Your task to perform on an android device: turn on the 12-hour format for clock Image 0: 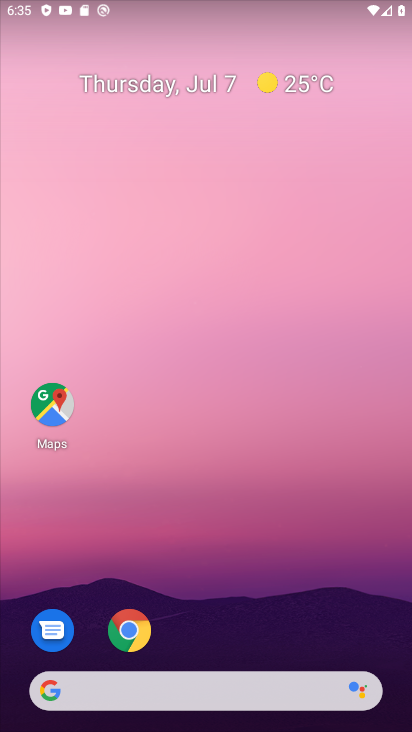
Step 0: drag from (259, 565) to (249, 152)
Your task to perform on an android device: turn on the 12-hour format for clock Image 1: 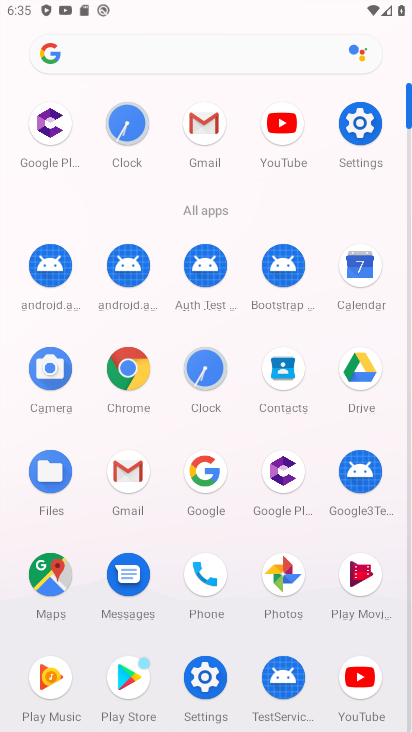
Step 1: click (203, 369)
Your task to perform on an android device: turn on the 12-hour format for clock Image 2: 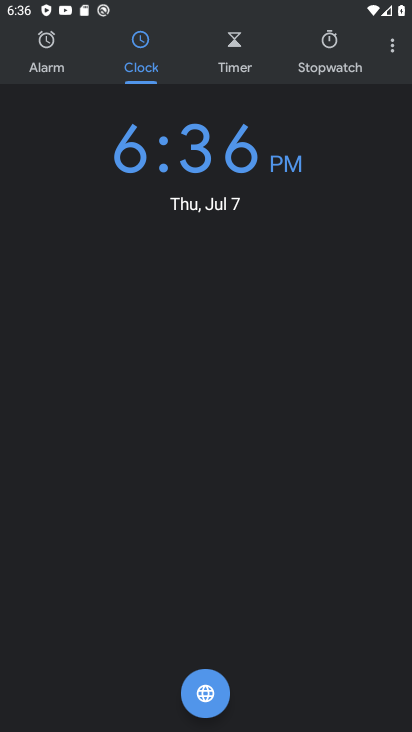
Step 2: click (393, 42)
Your task to perform on an android device: turn on the 12-hour format for clock Image 3: 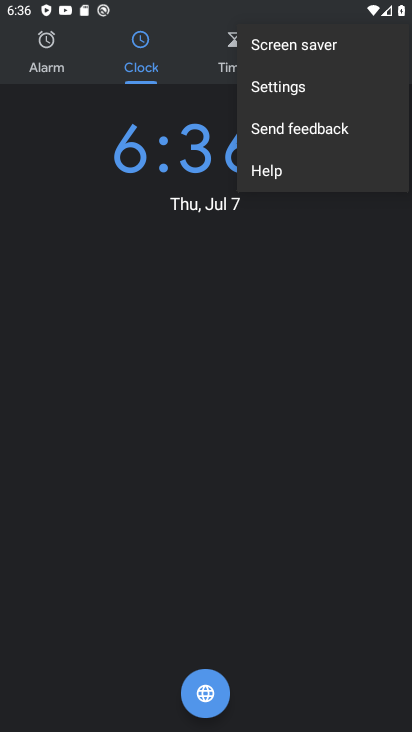
Step 3: click (294, 85)
Your task to perform on an android device: turn on the 12-hour format for clock Image 4: 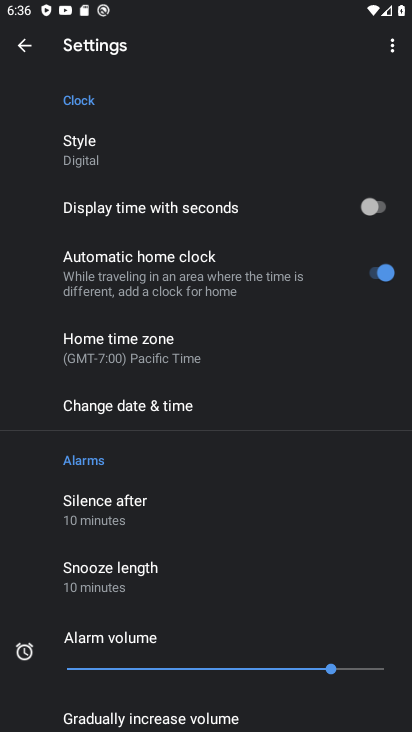
Step 4: click (175, 409)
Your task to perform on an android device: turn on the 12-hour format for clock Image 5: 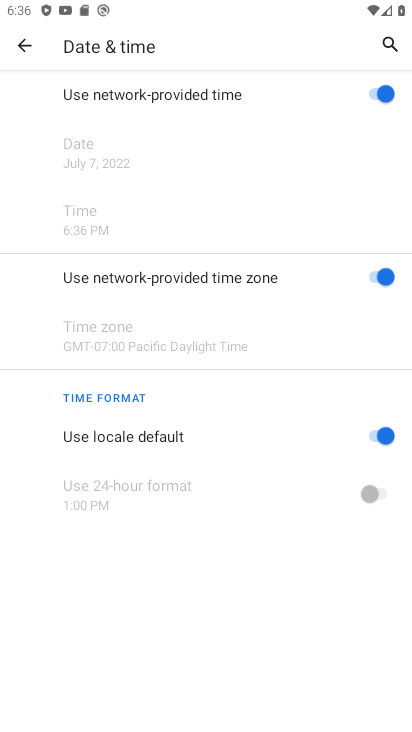
Step 5: task complete